Your task to perform on an android device: set the timer Image 0: 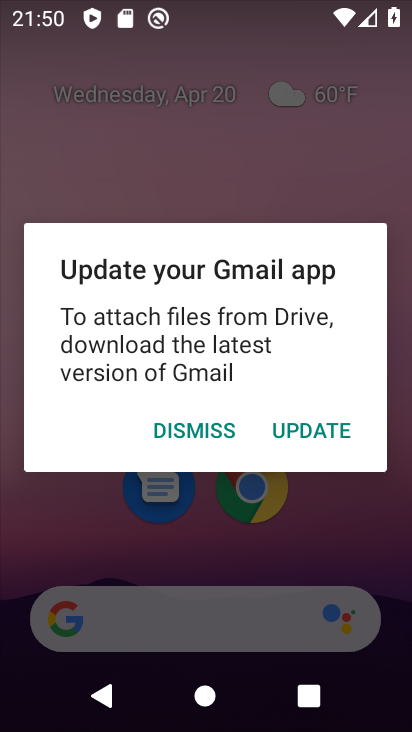
Step 0: click (172, 437)
Your task to perform on an android device: set the timer Image 1: 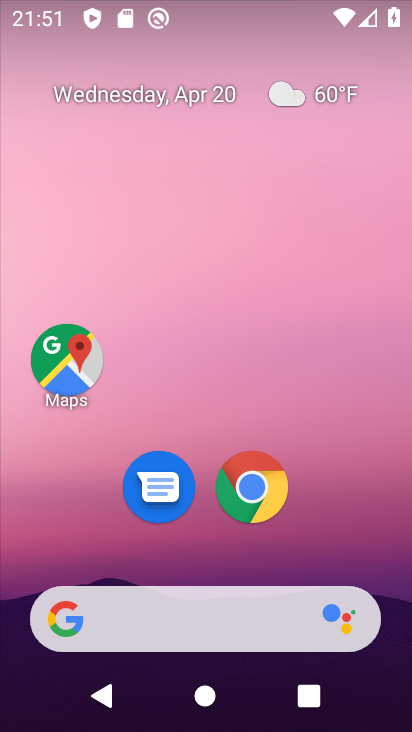
Step 1: drag from (40, 403) to (79, 191)
Your task to perform on an android device: set the timer Image 2: 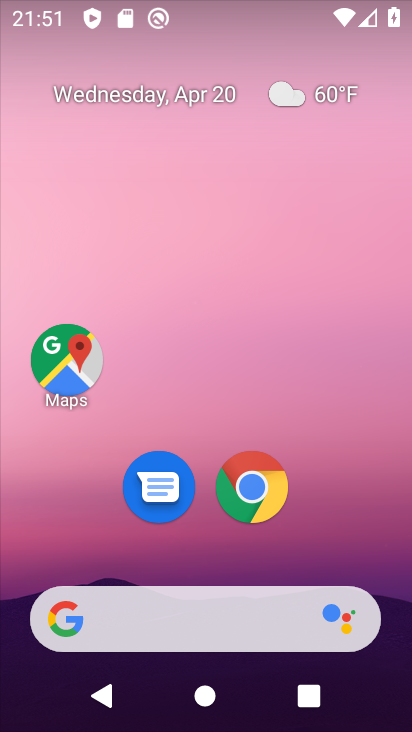
Step 2: drag from (121, 322) to (222, 115)
Your task to perform on an android device: set the timer Image 3: 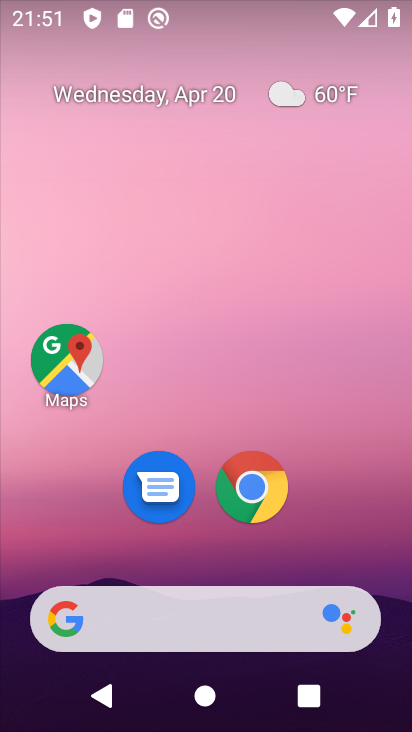
Step 3: drag from (108, 466) to (249, 182)
Your task to perform on an android device: set the timer Image 4: 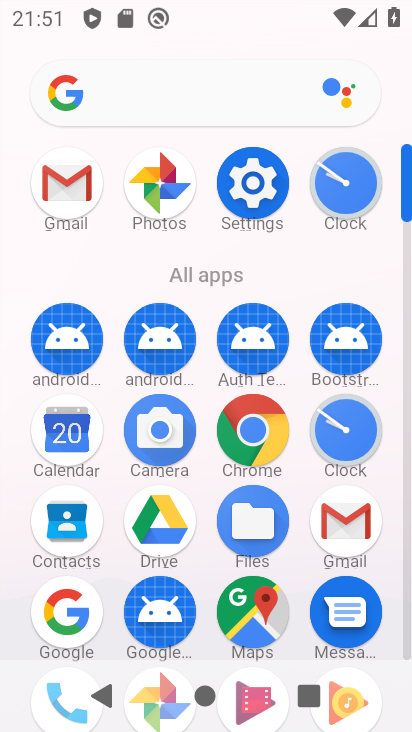
Step 4: click (342, 435)
Your task to perform on an android device: set the timer Image 5: 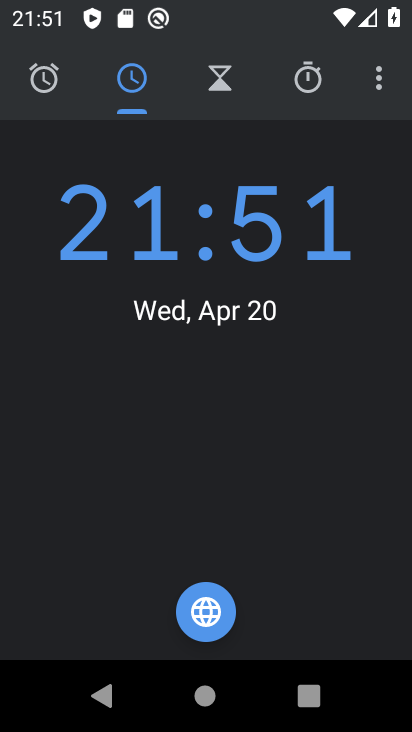
Step 5: click (219, 92)
Your task to perform on an android device: set the timer Image 6: 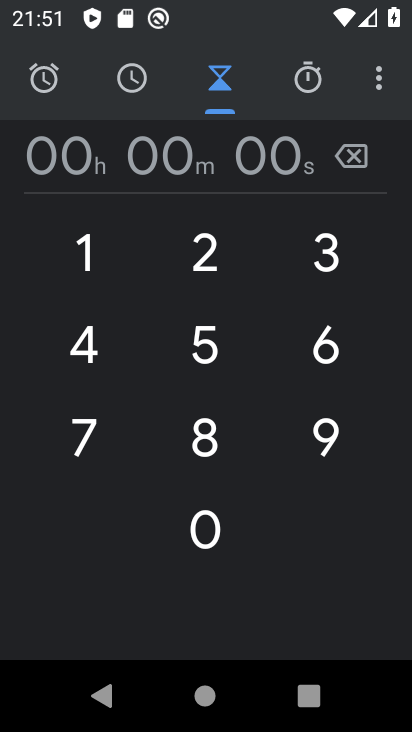
Step 6: click (205, 253)
Your task to perform on an android device: set the timer Image 7: 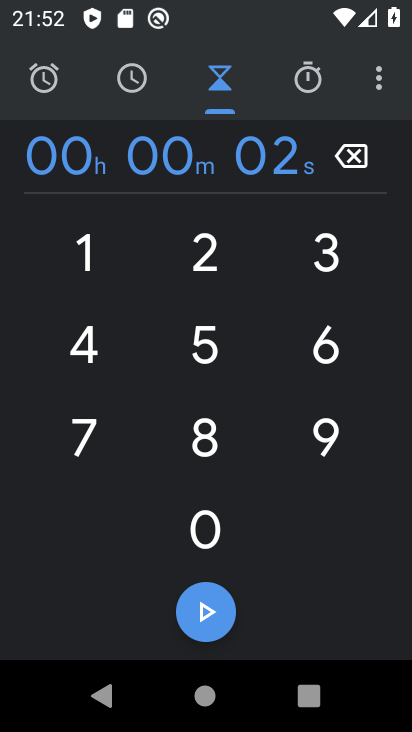
Step 7: click (199, 546)
Your task to perform on an android device: set the timer Image 8: 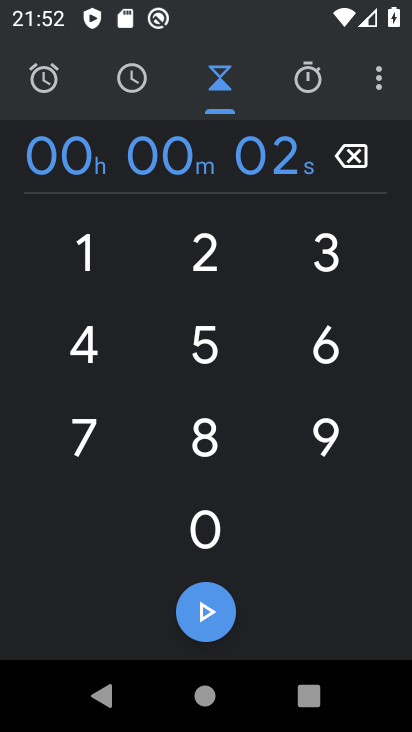
Step 8: click (199, 546)
Your task to perform on an android device: set the timer Image 9: 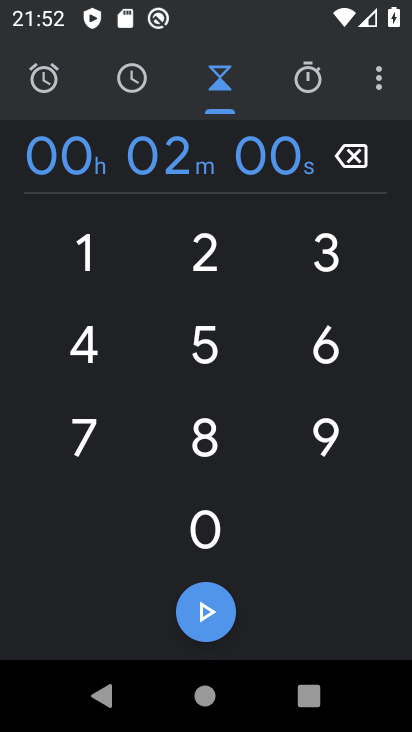
Step 9: click (199, 545)
Your task to perform on an android device: set the timer Image 10: 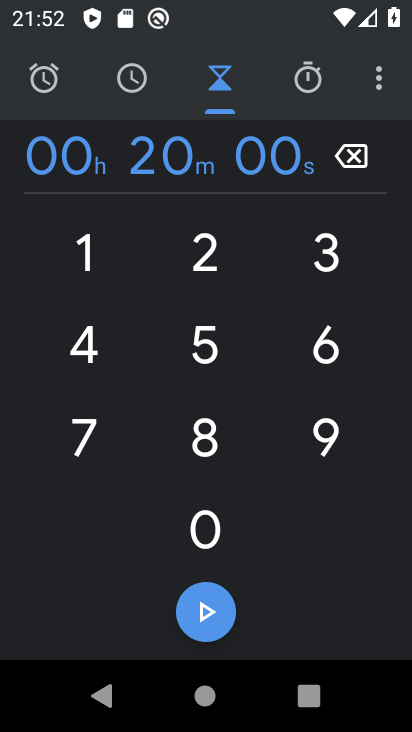
Step 10: click (199, 545)
Your task to perform on an android device: set the timer Image 11: 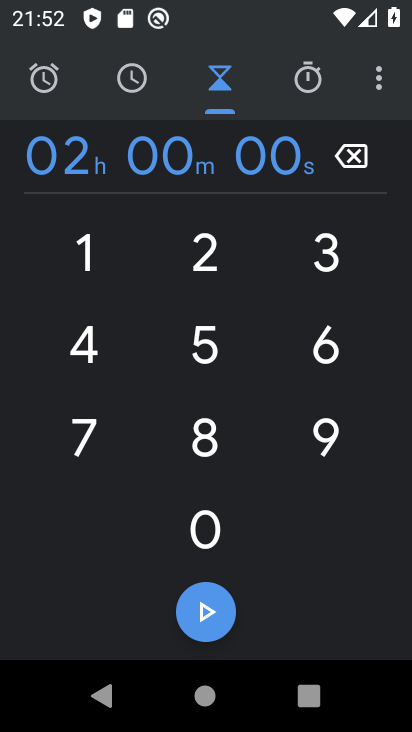
Step 11: click (205, 614)
Your task to perform on an android device: set the timer Image 12: 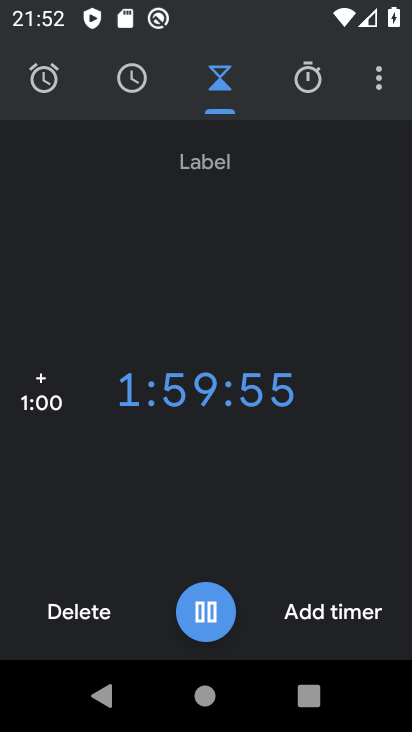
Step 12: task complete